Your task to perform on an android device: Open calendar and show me the third week of next month Image 0: 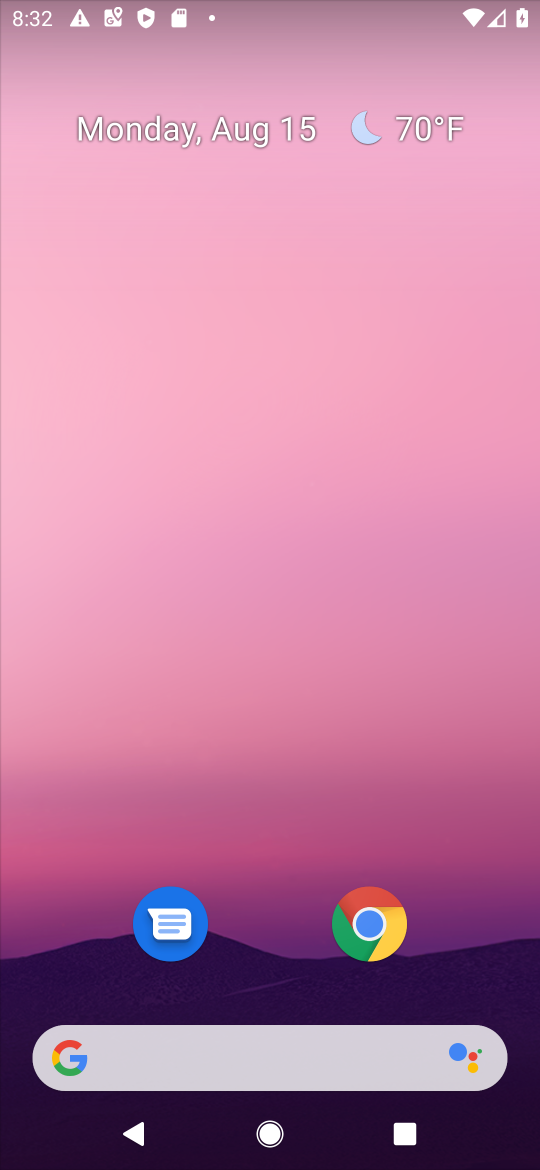
Step 0: drag from (493, 992) to (446, 172)
Your task to perform on an android device: Open calendar and show me the third week of next month Image 1: 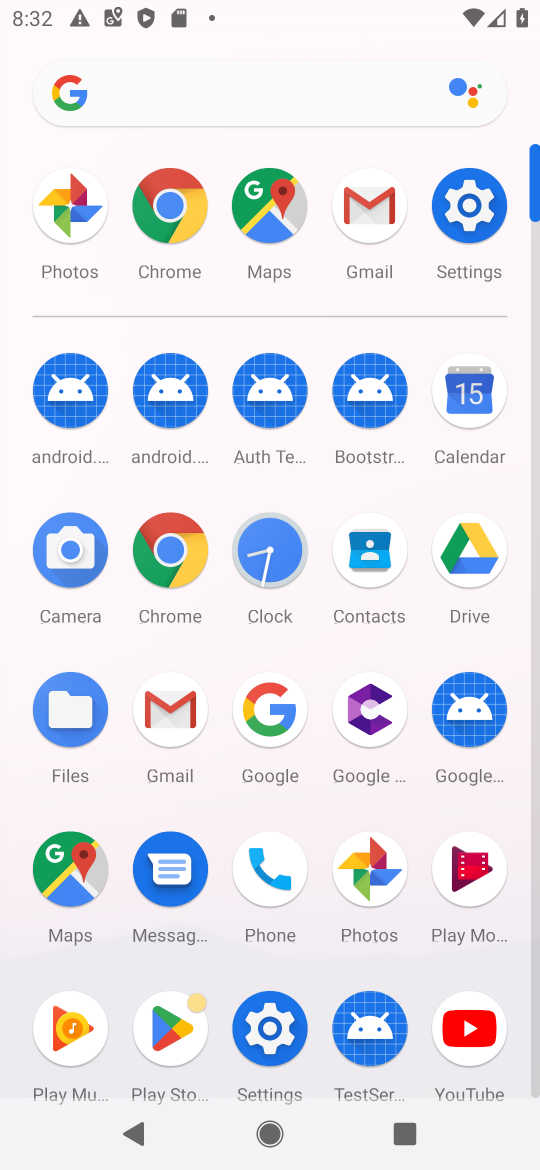
Step 1: click (472, 389)
Your task to perform on an android device: Open calendar and show me the third week of next month Image 2: 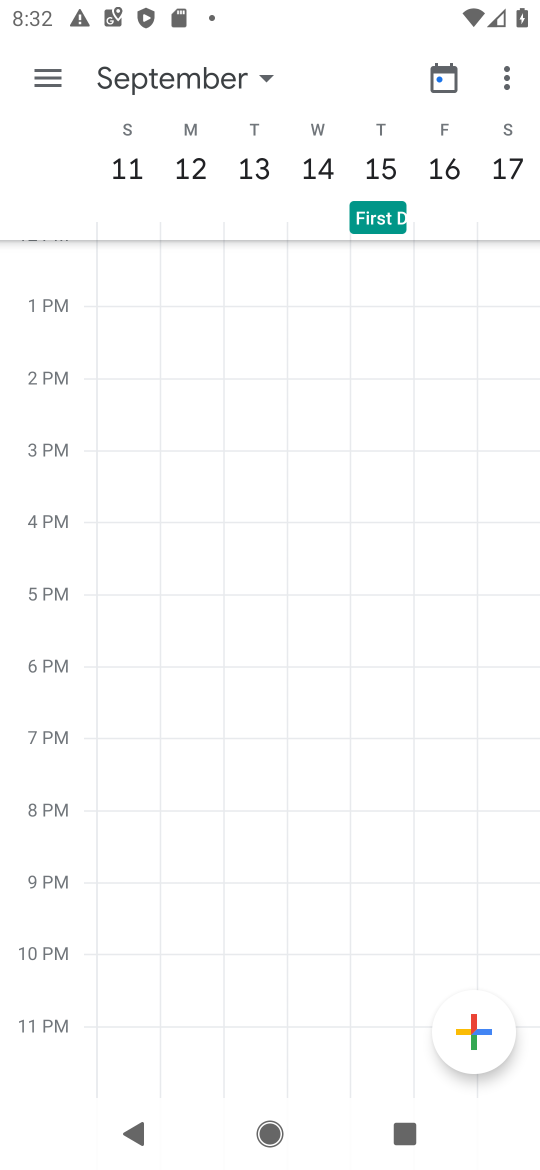
Step 2: click (259, 80)
Your task to perform on an android device: Open calendar and show me the third week of next month Image 3: 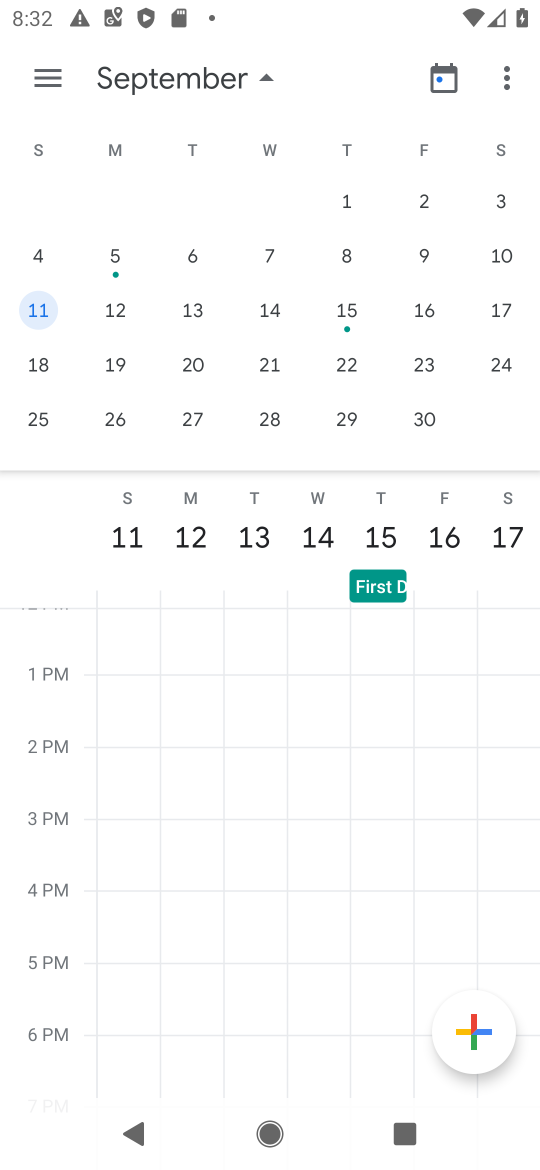
Step 3: click (32, 365)
Your task to perform on an android device: Open calendar and show me the third week of next month Image 4: 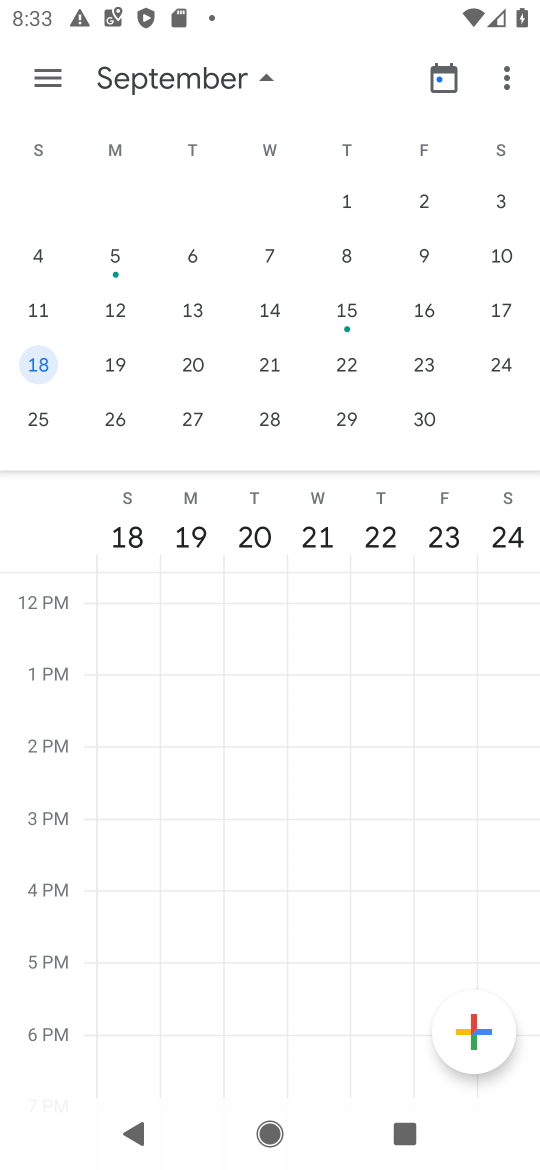
Step 4: task complete